Your task to perform on an android device: toggle show notifications on the lock screen Image 0: 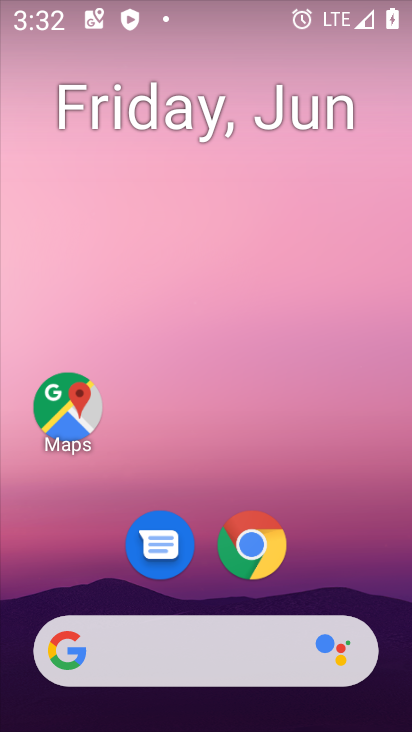
Step 0: drag from (340, 612) to (377, 2)
Your task to perform on an android device: toggle show notifications on the lock screen Image 1: 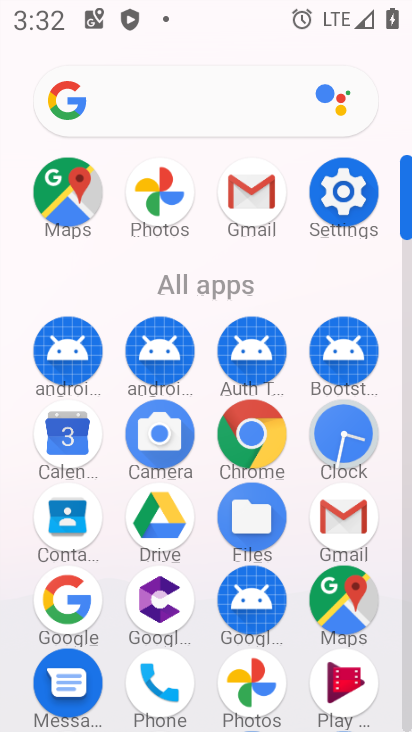
Step 1: click (344, 192)
Your task to perform on an android device: toggle show notifications on the lock screen Image 2: 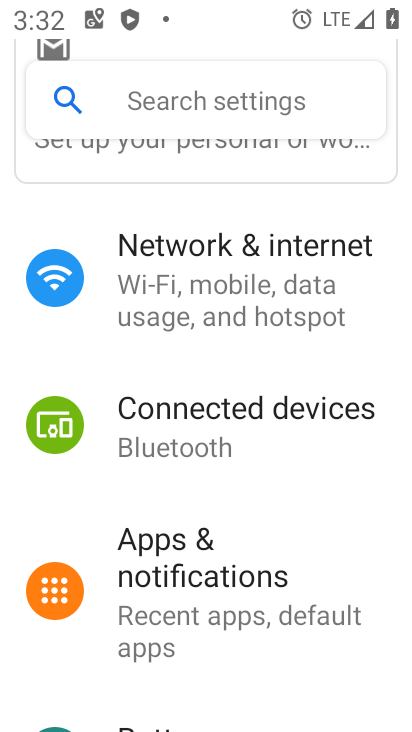
Step 2: click (219, 629)
Your task to perform on an android device: toggle show notifications on the lock screen Image 3: 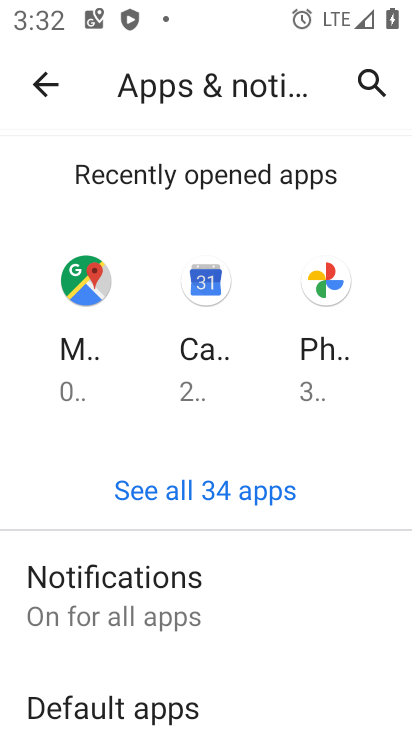
Step 3: click (160, 607)
Your task to perform on an android device: toggle show notifications on the lock screen Image 4: 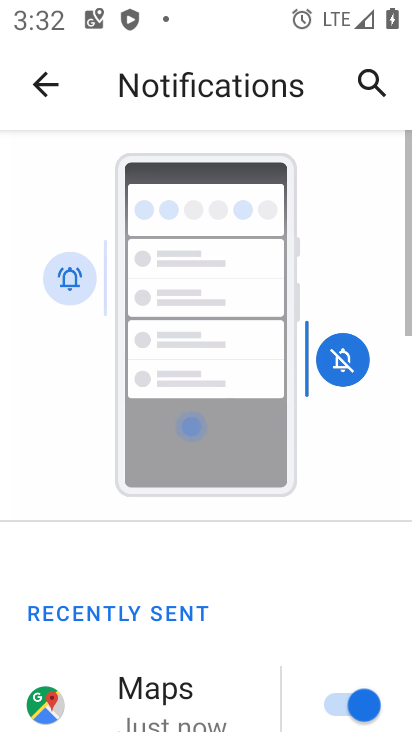
Step 4: drag from (229, 678) to (304, 250)
Your task to perform on an android device: toggle show notifications on the lock screen Image 5: 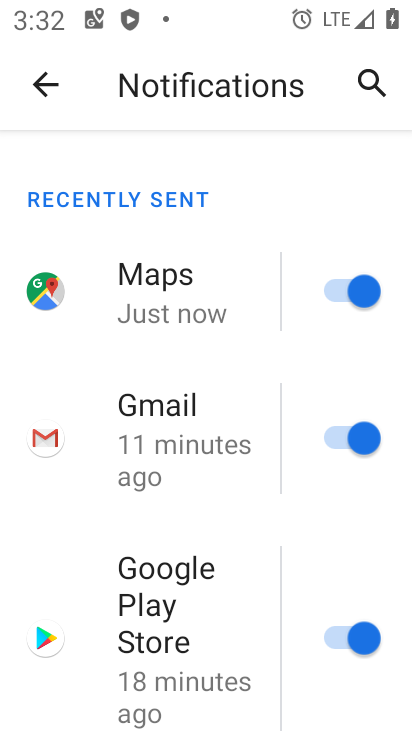
Step 5: drag from (215, 622) to (215, 142)
Your task to perform on an android device: toggle show notifications on the lock screen Image 6: 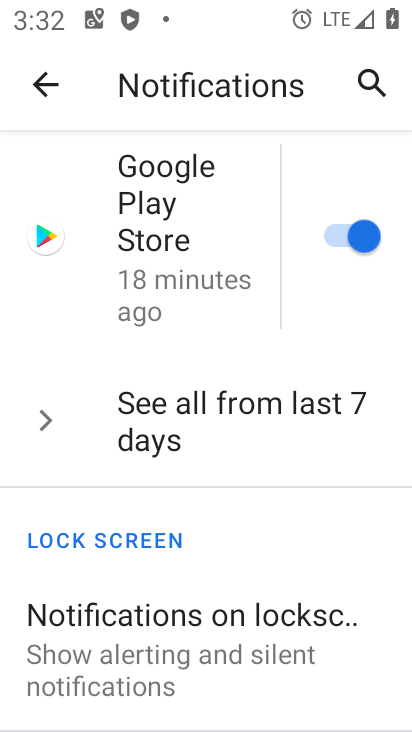
Step 6: click (188, 662)
Your task to perform on an android device: toggle show notifications on the lock screen Image 7: 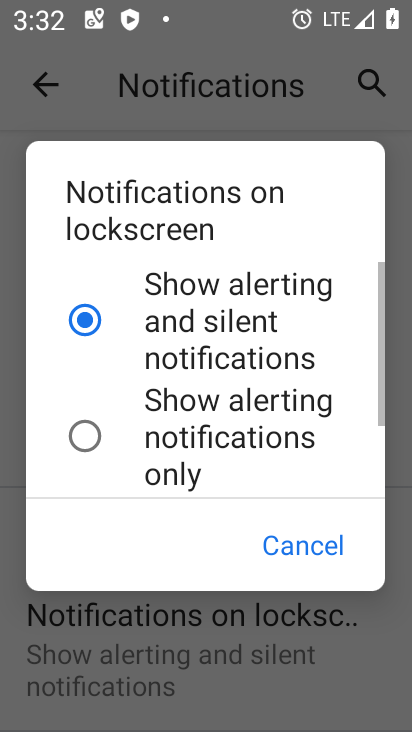
Step 7: click (209, 437)
Your task to perform on an android device: toggle show notifications on the lock screen Image 8: 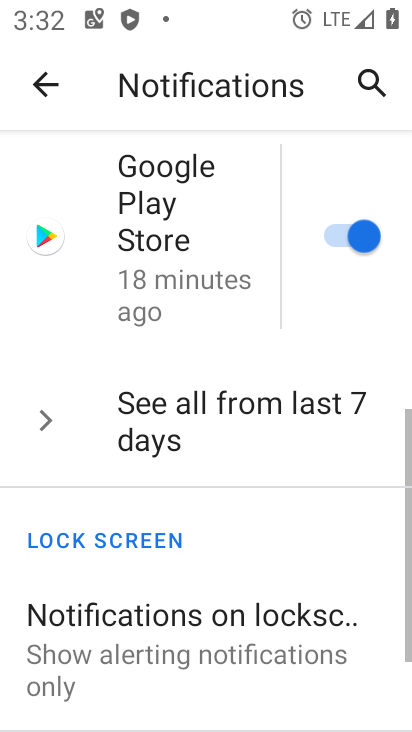
Step 8: task complete